Your task to perform on an android device: delete the emails in spam in the gmail app Image 0: 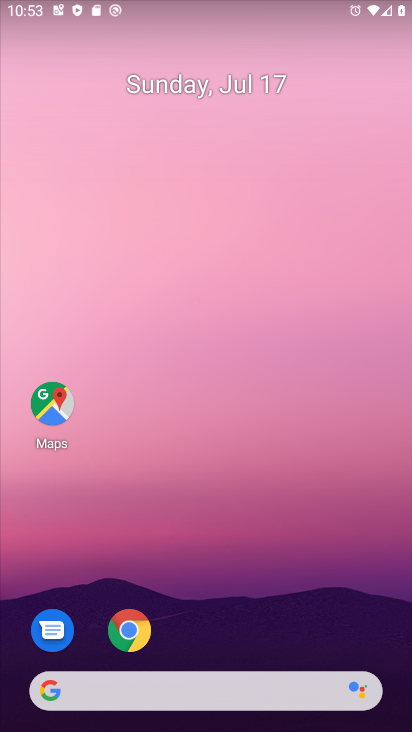
Step 0: drag from (359, 622) to (374, 75)
Your task to perform on an android device: delete the emails in spam in the gmail app Image 1: 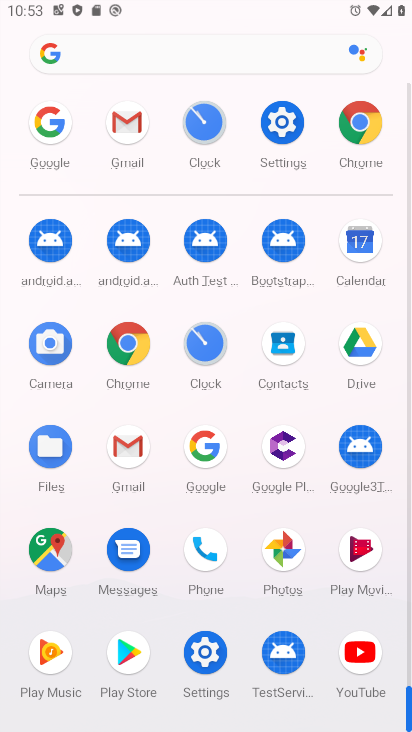
Step 1: click (135, 448)
Your task to perform on an android device: delete the emails in spam in the gmail app Image 2: 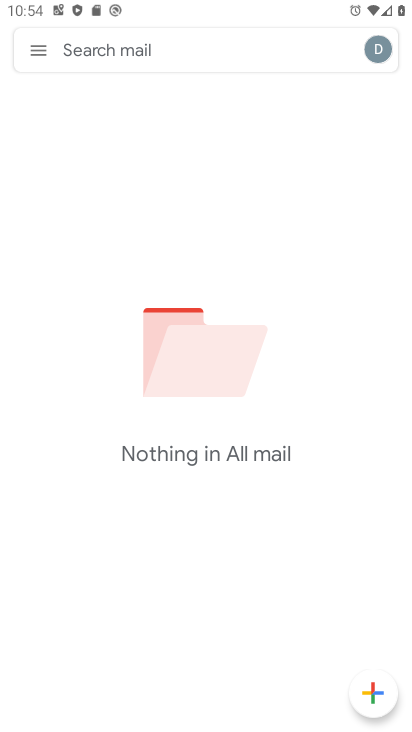
Step 2: click (35, 49)
Your task to perform on an android device: delete the emails in spam in the gmail app Image 3: 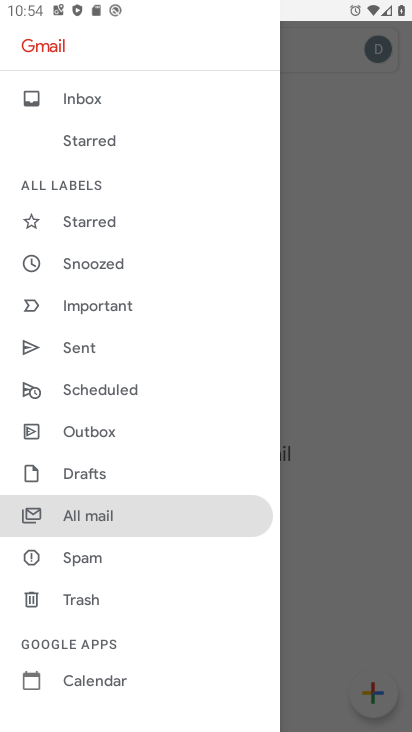
Step 3: click (126, 556)
Your task to perform on an android device: delete the emails in spam in the gmail app Image 4: 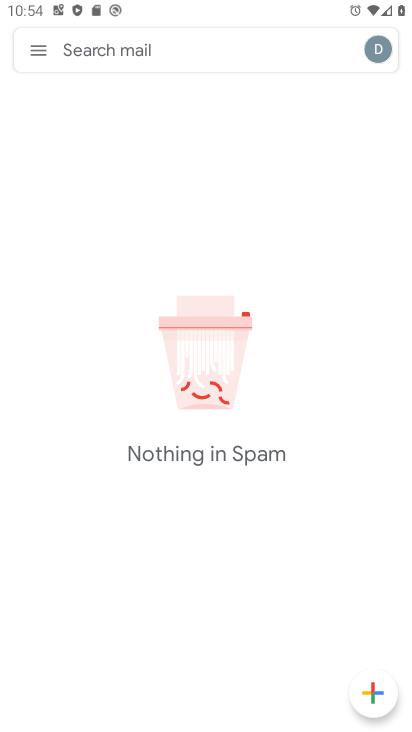
Step 4: task complete